Your task to perform on an android device: Search for seafood restaurants on Google Maps Image 0: 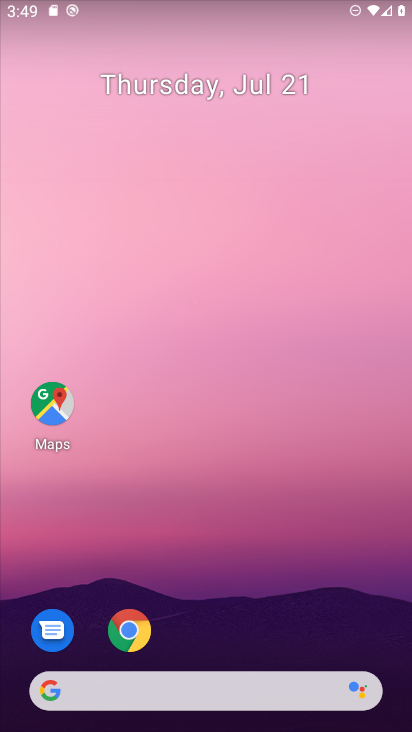
Step 0: click (38, 392)
Your task to perform on an android device: Search for seafood restaurants on Google Maps Image 1: 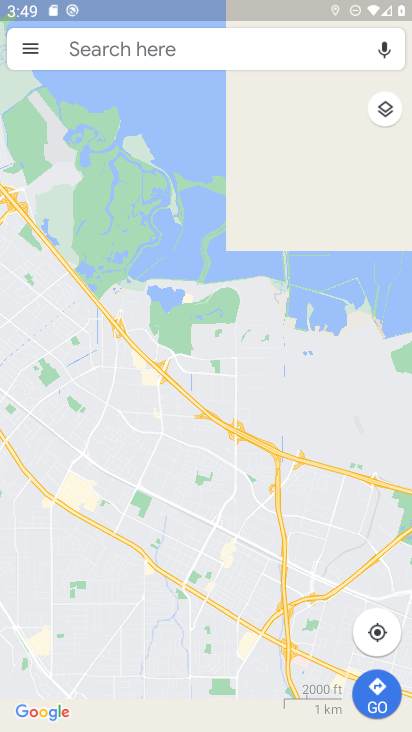
Step 1: click (137, 47)
Your task to perform on an android device: Search for seafood restaurants on Google Maps Image 2: 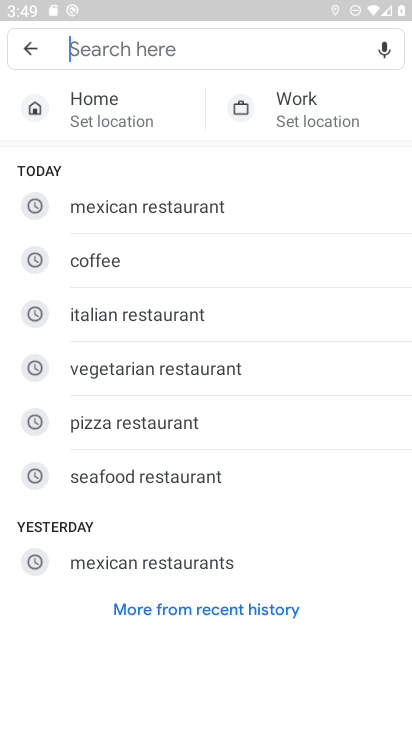
Step 2: click (90, 50)
Your task to perform on an android device: Search for seafood restaurants on Google Maps Image 3: 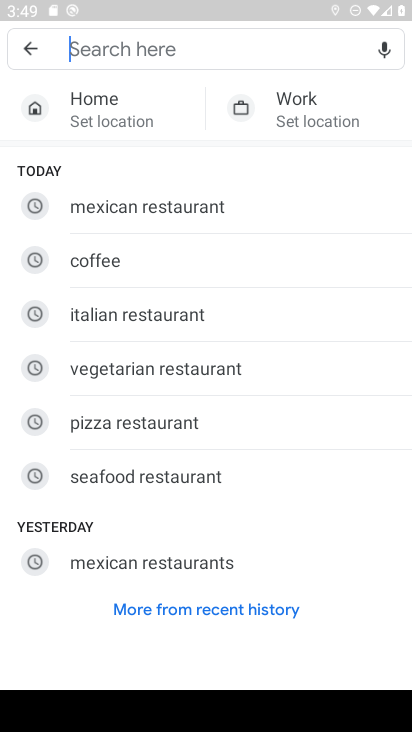
Step 3: click (137, 472)
Your task to perform on an android device: Search for seafood restaurants on Google Maps Image 4: 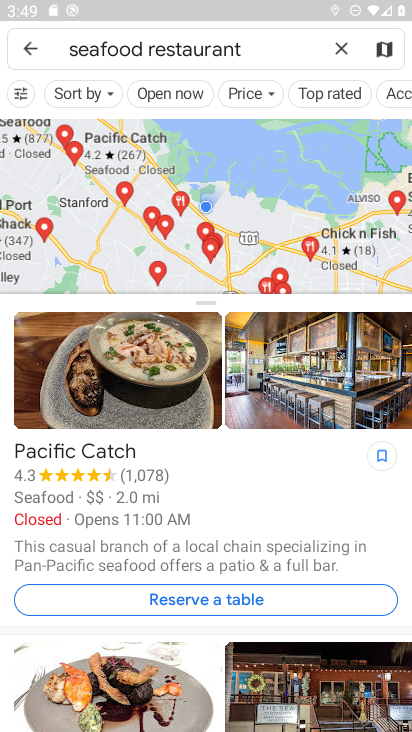
Step 4: task complete